Your task to perform on an android device: Check the weather Image 0: 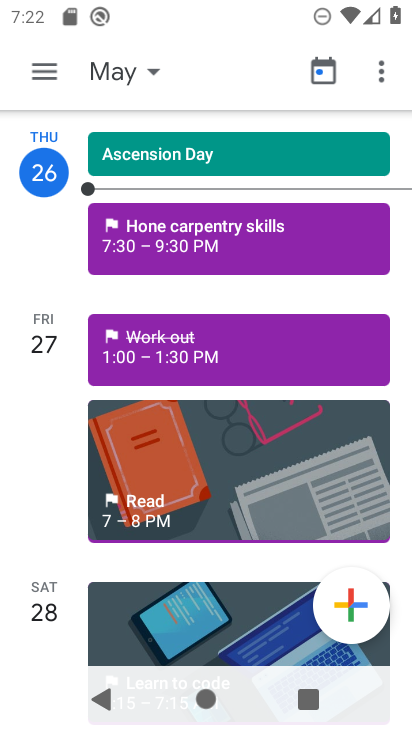
Step 0: press home button
Your task to perform on an android device: Check the weather Image 1: 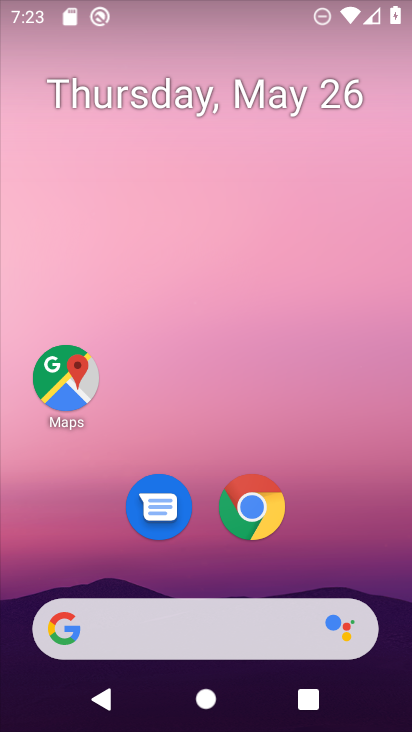
Step 1: click (194, 617)
Your task to perform on an android device: Check the weather Image 2: 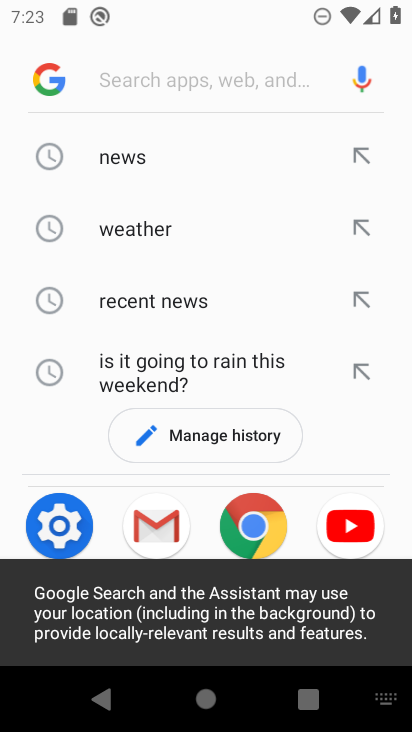
Step 2: click (154, 224)
Your task to perform on an android device: Check the weather Image 3: 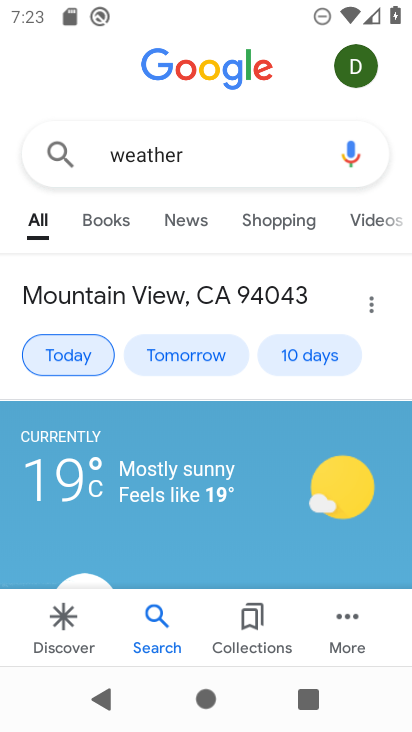
Step 3: task complete